Your task to perform on an android device: add a contact Image 0: 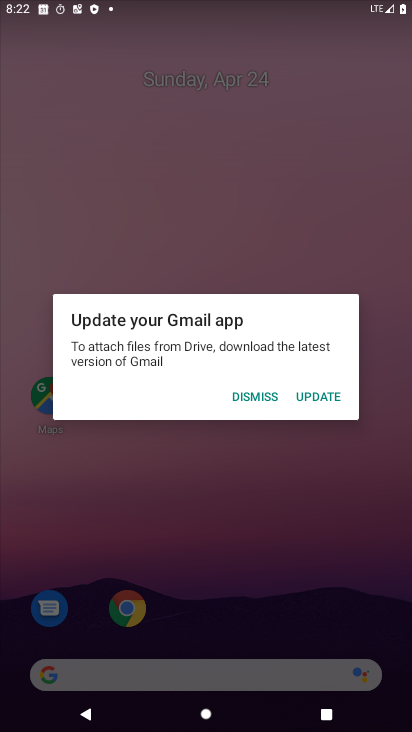
Step 0: press home button
Your task to perform on an android device: add a contact Image 1: 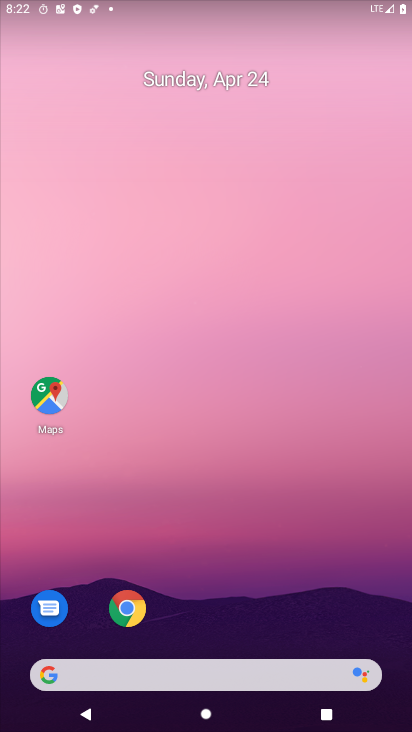
Step 1: drag from (300, 446) to (299, 97)
Your task to perform on an android device: add a contact Image 2: 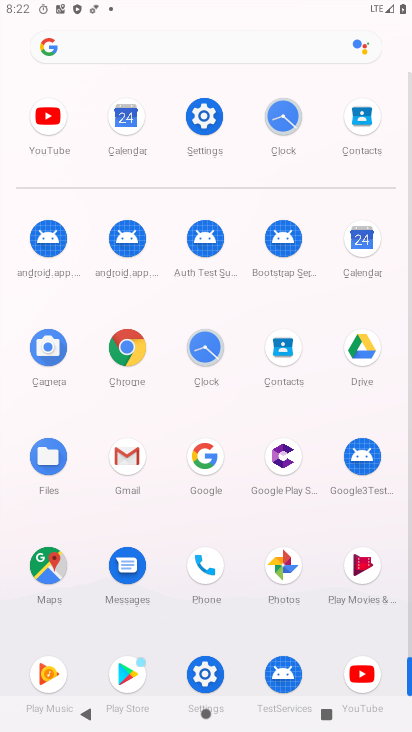
Step 2: click (285, 350)
Your task to perform on an android device: add a contact Image 3: 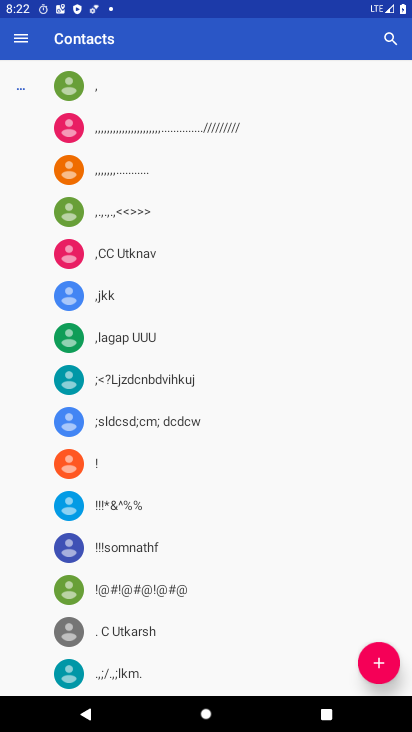
Step 3: click (376, 660)
Your task to perform on an android device: add a contact Image 4: 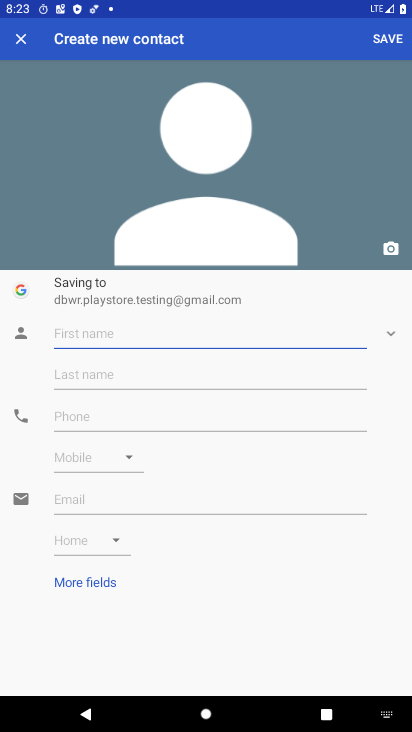
Step 4: type "Durgeshanand"
Your task to perform on an android device: add a contact Image 5: 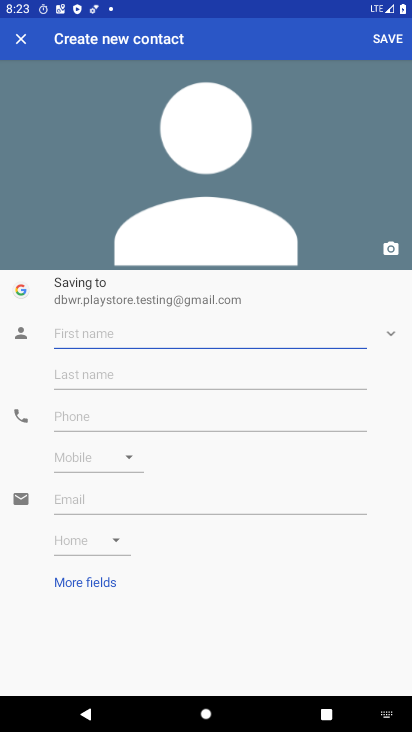
Step 5: click (274, 373)
Your task to perform on an android device: add a contact Image 6: 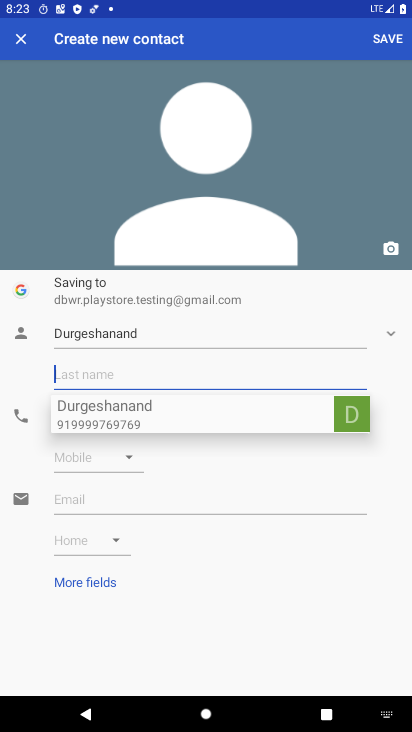
Step 6: type "Dwivedi"
Your task to perform on an android device: add a contact Image 7: 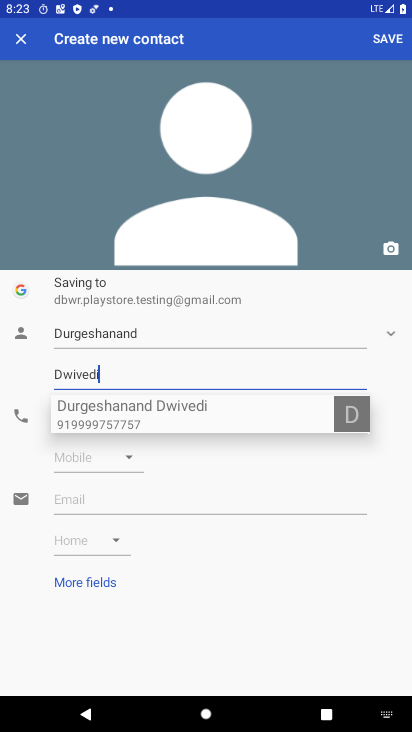
Step 7: click (269, 497)
Your task to perform on an android device: add a contact Image 8: 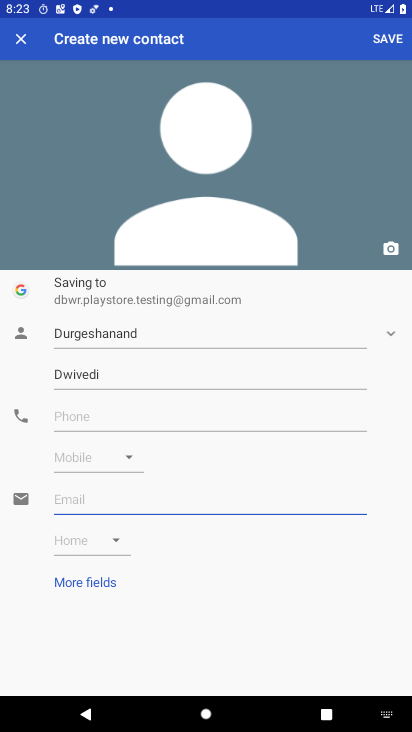
Step 8: click (173, 407)
Your task to perform on an android device: add a contact Image 9: 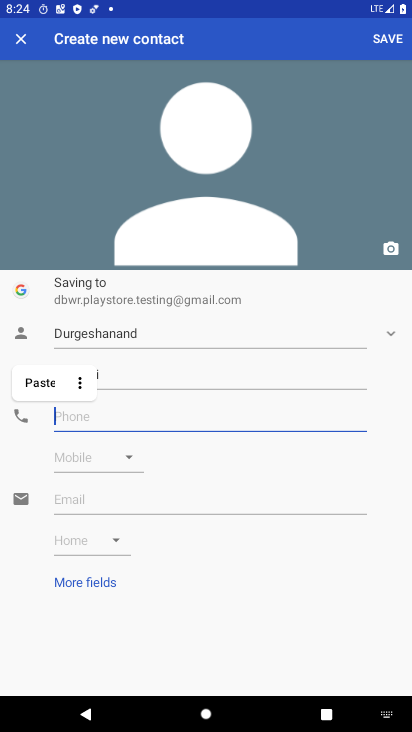
Step 9: type "919999769757"
Your task to perform on an android device: add a contact Image 10: 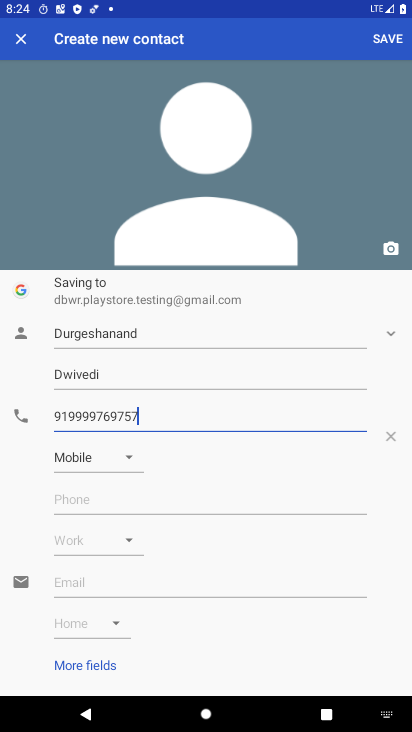
Step 10: click (386, 39)
Your task to perform on an android device: add a contact Image 11: 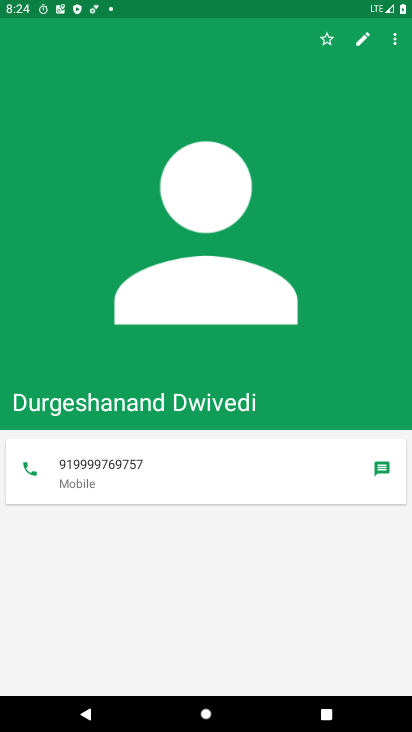
Step 11: task complete